Your task to perform on an android device: Go to notification settings Image 0: 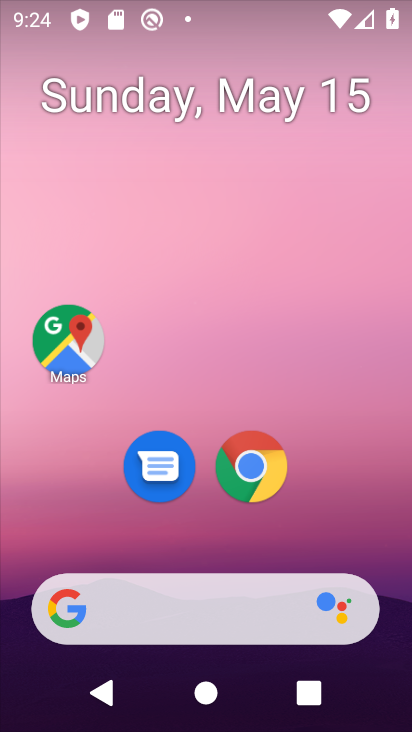
Step 0: click (26, 629)
Your task to perform on an android device: Go to notification settings Image 1: 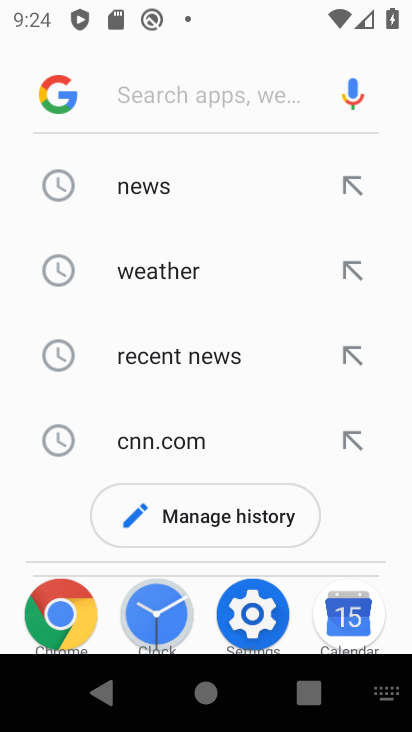
Step 1: drag from (393, 525) to (225, 284)
Your task to perform on an android device: Go to notification settings Image 2: 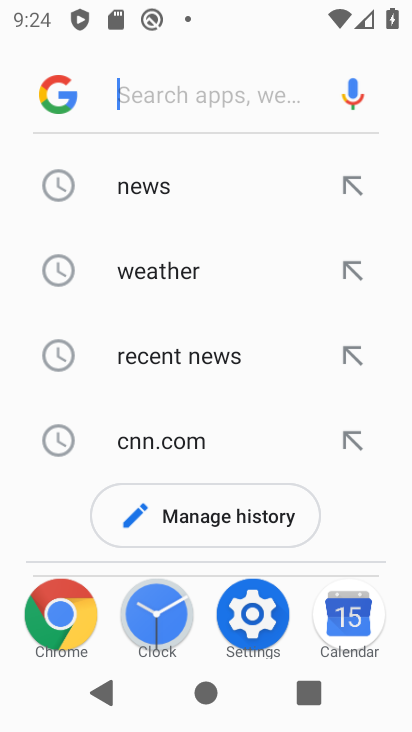
Step 2: press home button
Your task to perform on an android device: Go to notification settings Image 3: 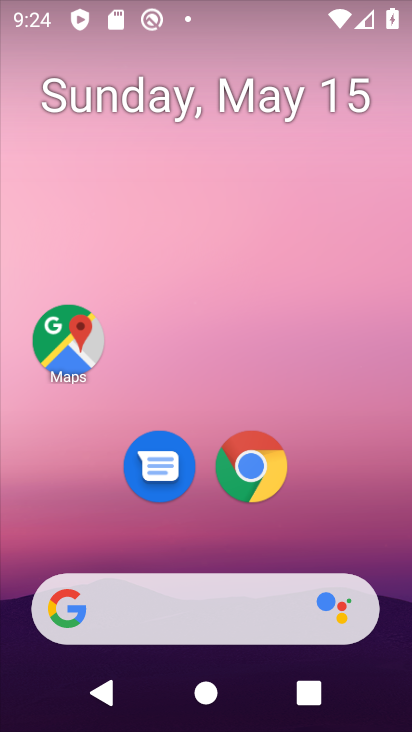
Step 3: drag from (322, 486) to (100, 5)
Your task to perform on an android device: Go to notification settings Image 4: 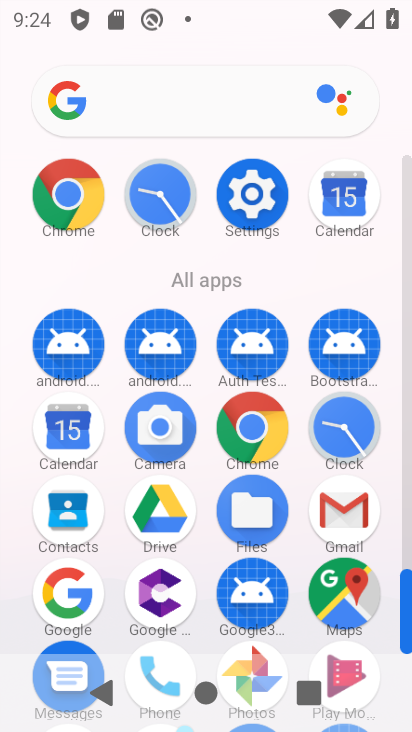
Step 4: drag from (347, 442) to (281, 192)
Your task to perform on an android device: Go to notification settings Image 5: 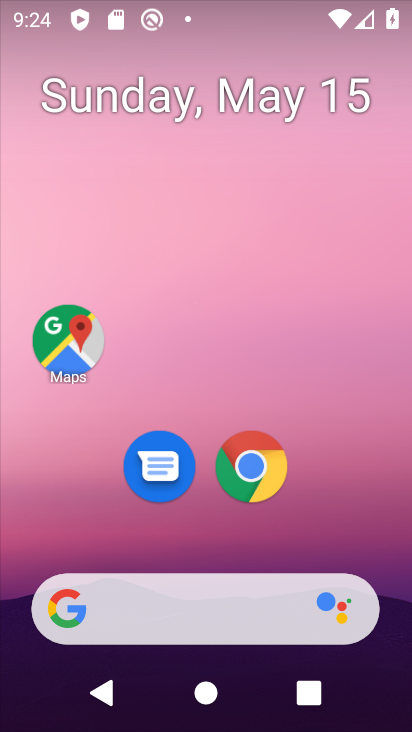
Step 5: drag from (290, 519) to (124, 19)
Your task to perform on an android device: Go to notification settings Image 6: 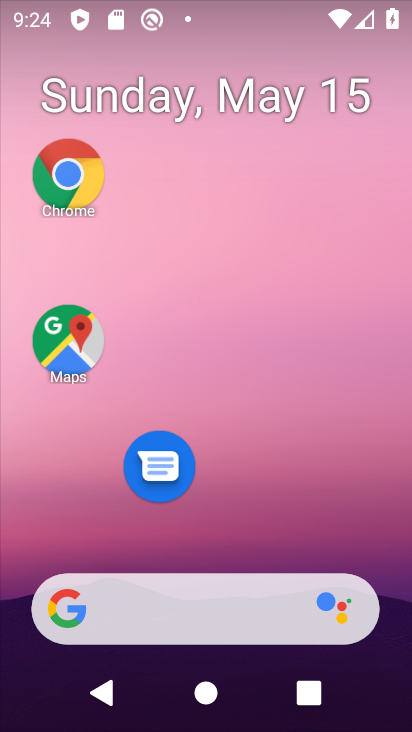
Step 6: drag from (369, 542) to (25, 90)
Your task to perform on an android device: Go to notification settings Image 7: 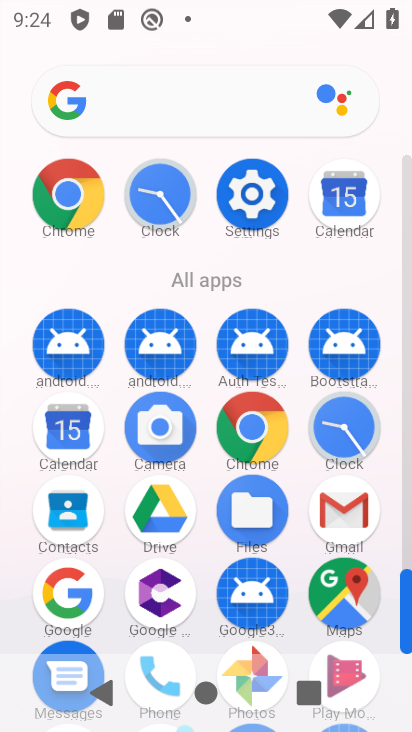
Step 7: click (250, 192)
Your task to perform on an android device: Go to notification settings Image 8: 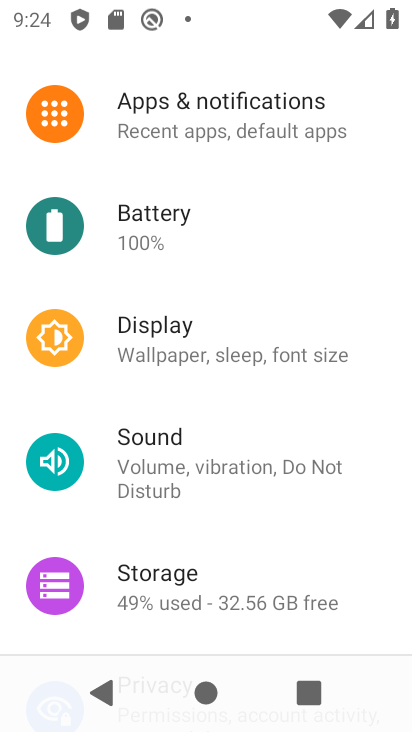
Step 8: click (254, 123)
Your task to perform on an android device: Go to notification settings Image 9: 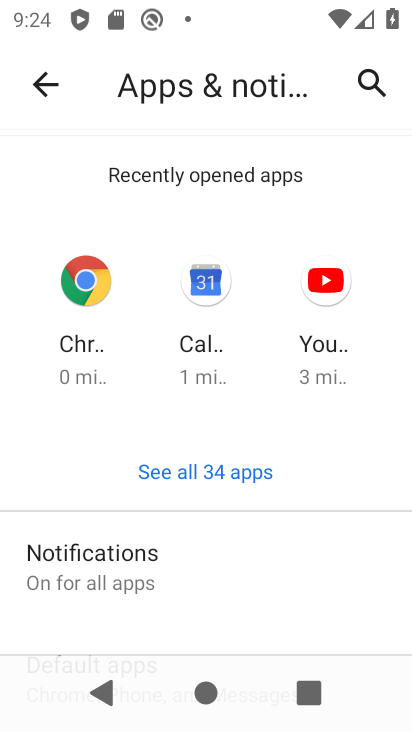
Step 9: click (98, 549)
Your task to perform on an android device: Go to notification settings Image 10: 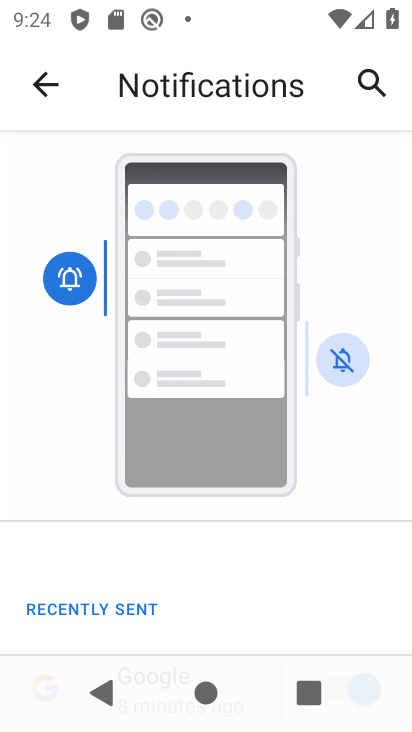
Step 10: task complete